Your task to perform on an android device: Go to privacy settings Image 0: 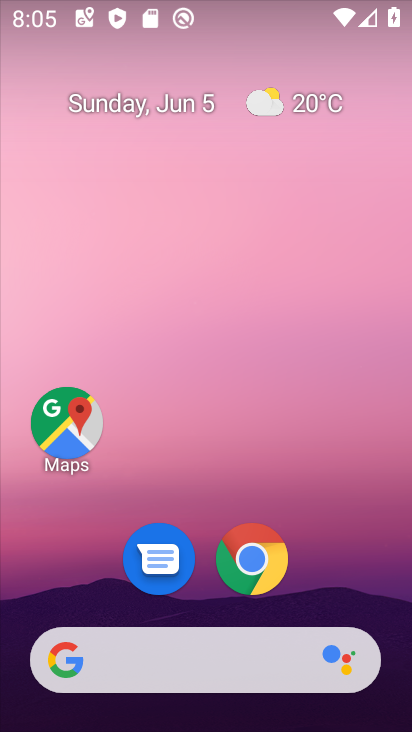
Step 0: drag from (314, 593) to (298, 239)
Your task to perform on an android device: Go to privacy settings Image 1: 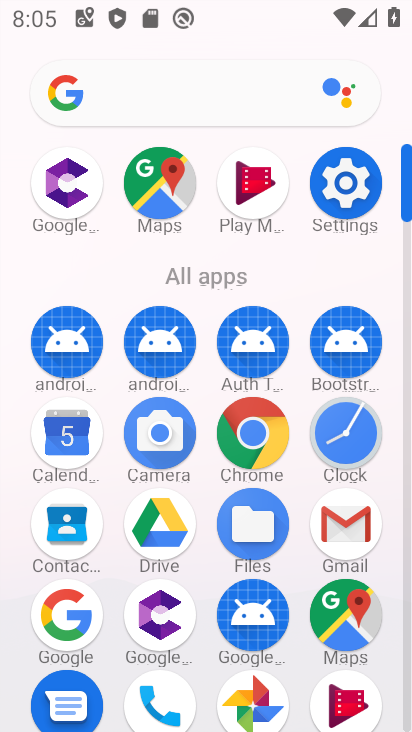
Step 1: click (342, 185)
Your task to perform on an android device: Go to privacy settings Image 2: 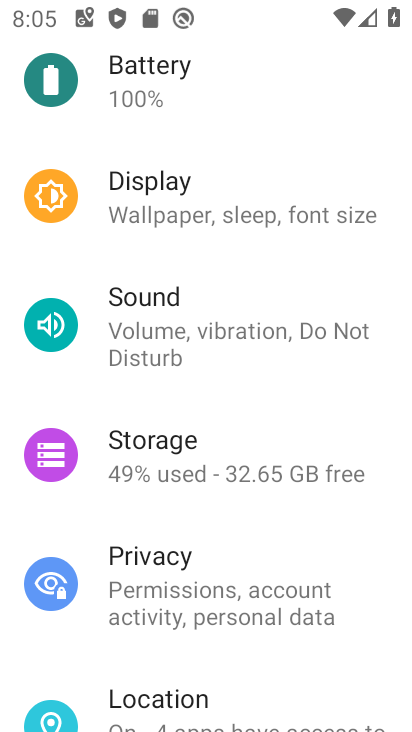
Step 2: drag from (239, 635) to (235, 512)
Your task to perform on an android device: Go to privacy settings Image 3: 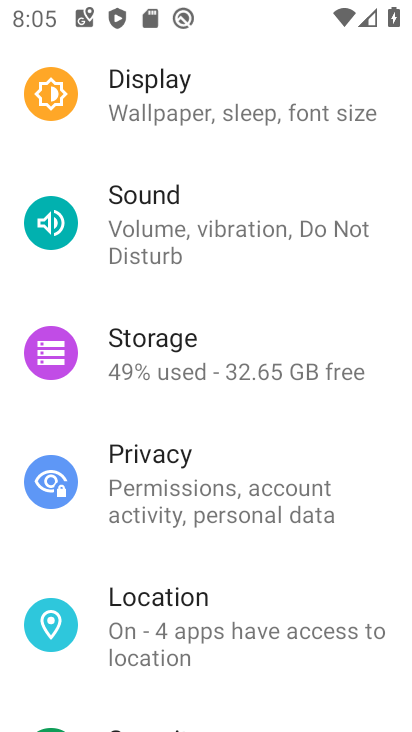
Step 3: click (234, 508)
Your task to perform on an android device: Go to privacy settings Image 4: 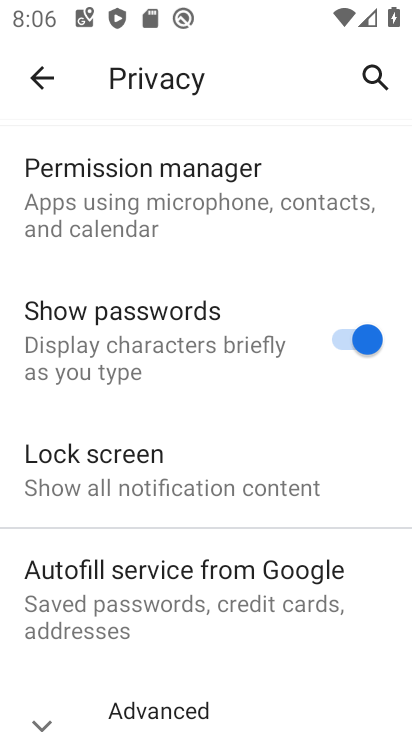
Step 4: task complete